Your task to perform on an android device: turn off data saver in the chrome app Image 0: 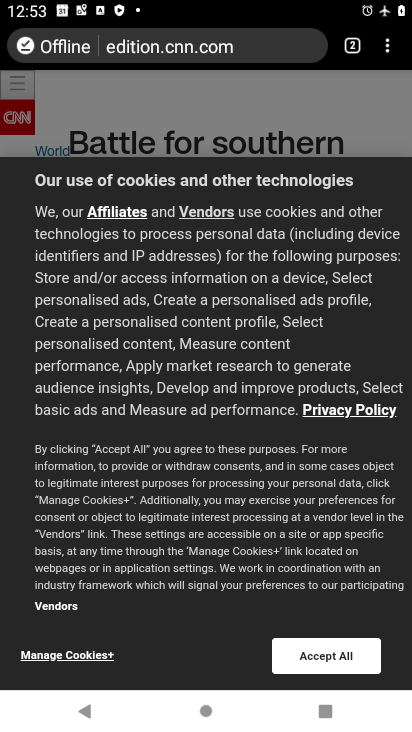
Step 0: drag from (302, 613) to (340, 335)
Your task to perform on an android device: turn off data saver in the chrome app Image 1: 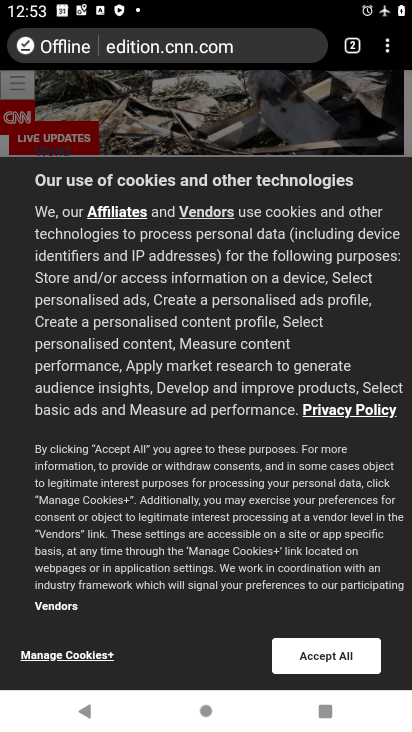
Step 1: press home button
Your task to perform on an android device: turn off data saver in the chrome app Image 2: 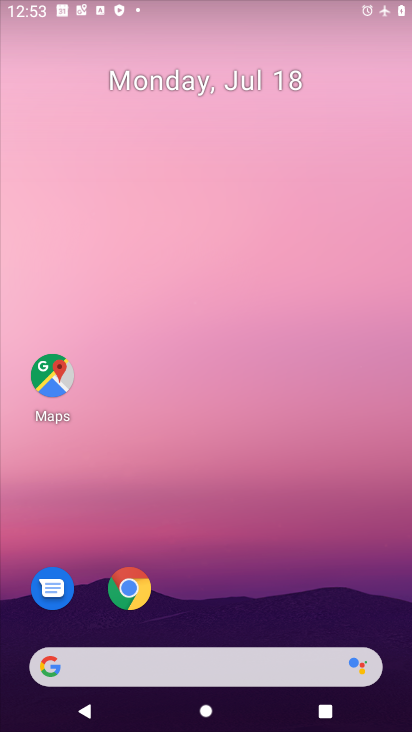
Step 2: drag from (305, 504) to (344, 355)
Your task to perform on an android device: turn off data saver in the chrome app Image 3: 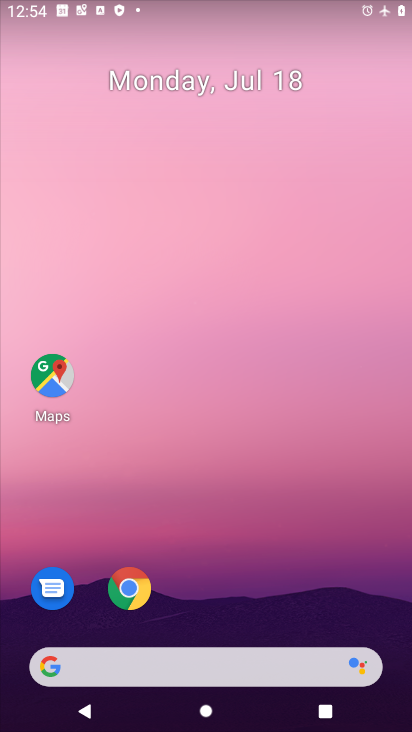
Step 3: drag from (281, 461) to (381, 167)
Your task to perform on an android device: turn off data saver in the chrome app Image 4: 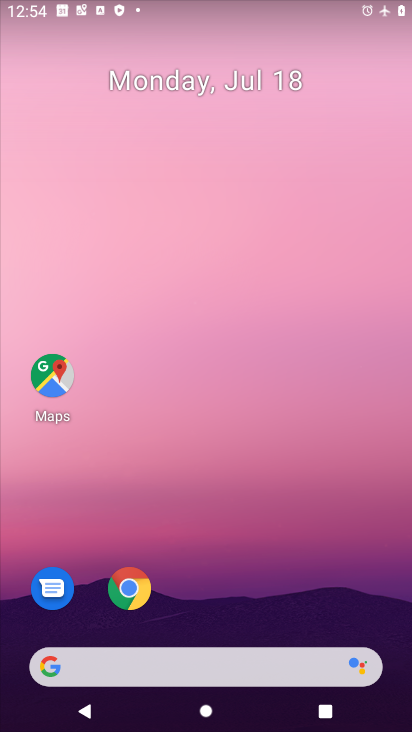
Step 4: drag from (243, 567) to (377, 89)
Your task to perform on an android device: turn off data saver in the chrome app Image 5: 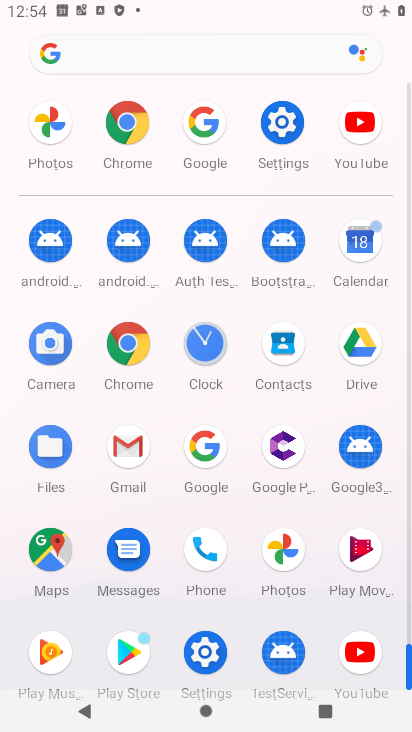
Step 5: click (137, 141)
Your task to perform on an android device: turn off data saver in the chrome app Image 6: 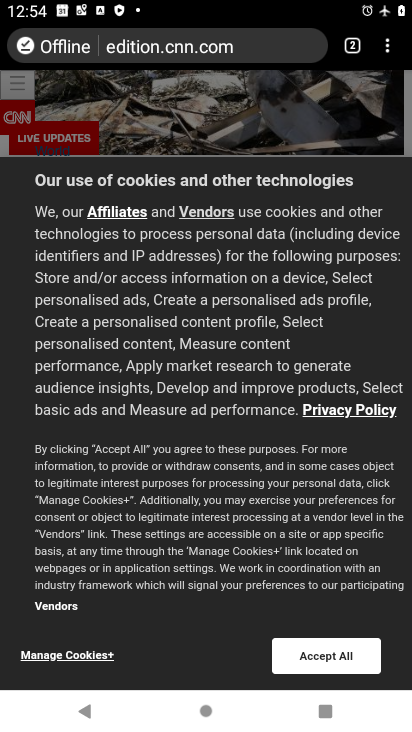
Step 6: click (383, 57)
Your task to perform on an android device: turn off data saver in the chrome app Image 7: 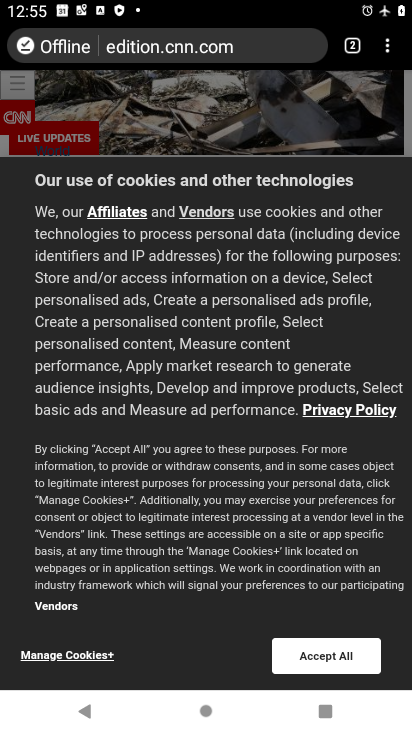
Step 7: click (388, 45)
Your task to perform on an android device: turn off data saver in the chrome app Image 8: 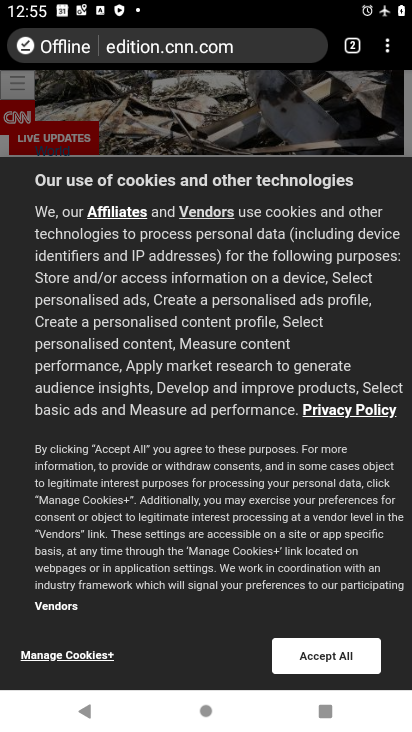
Step 8: click (387, 49)
Your task to perform on an android device: turn off data saver in the chrome app Image 9: 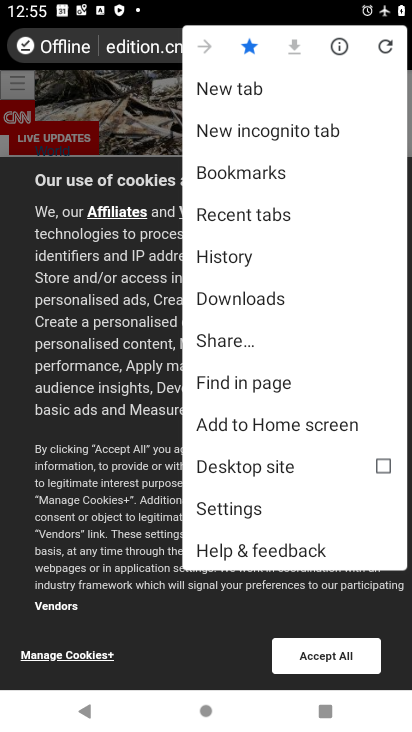
Step 9: click (228, 505)
Your task to perform on an android device: turn off data saver in the chrome app Image 10: 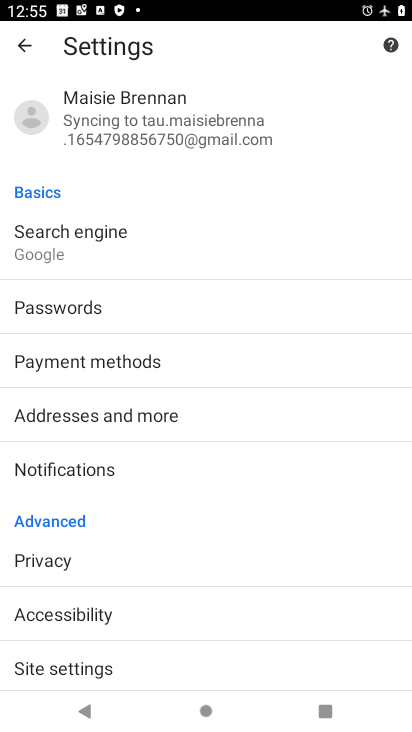
Step 10: drag from (155, 512) to (256, 206)
Your task to perform on an android device: turn off data saver in the chrome app Image 11: 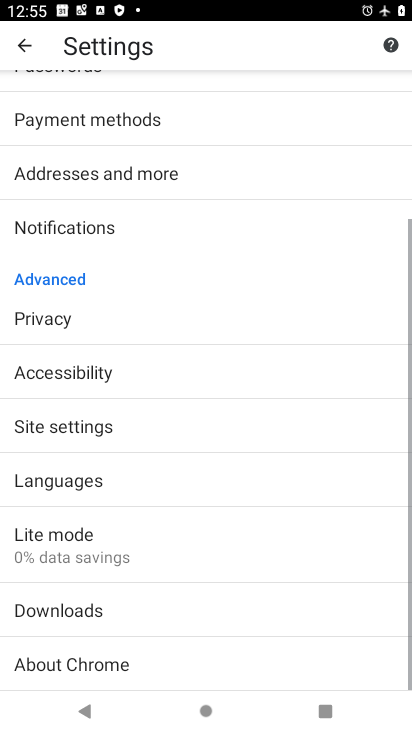
Step 11: click (95, 543)
Your task to perform on an android device: turn off data saver in the chrome app Image 12: 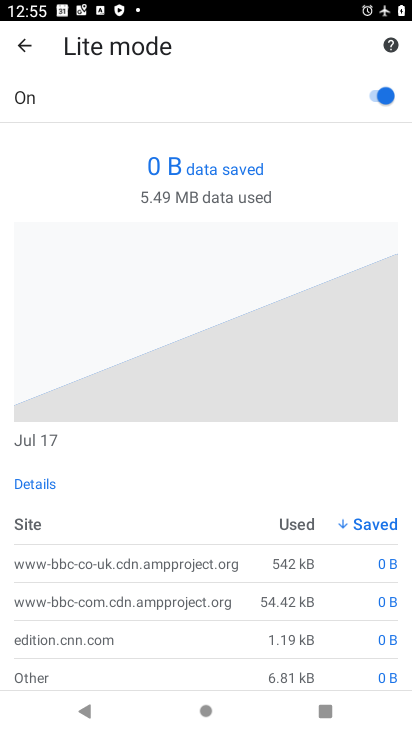
Step 12: click (376, 95)
Your task to perform on an android device: turn off data saver in the chrome app Image 13: 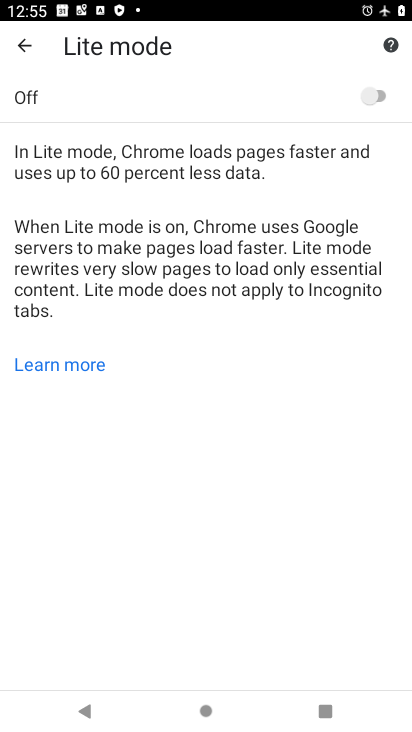
Step 13: task complete